Your task to perform on an android device: Go to calendar. Show me events next week Image 0: 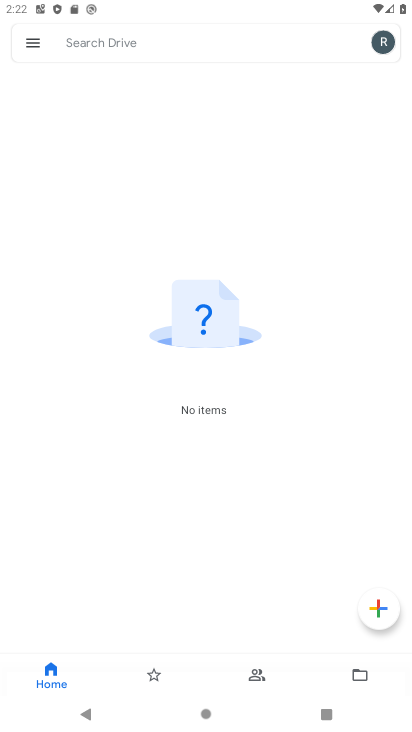
Step 0: press home button
Your task to perform on an android device: Go to calendar. Show me events next week Image 1: 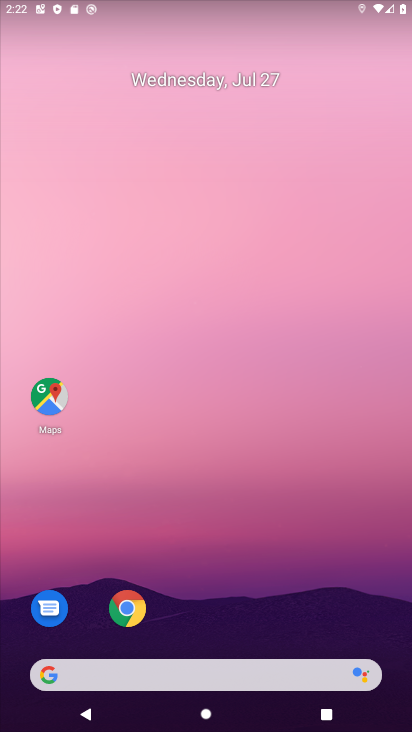
Step 1: drag from (256, 332) to (161, 111)
Your task to perform on an android device: Go to calendar. Show me events next week Image 2: 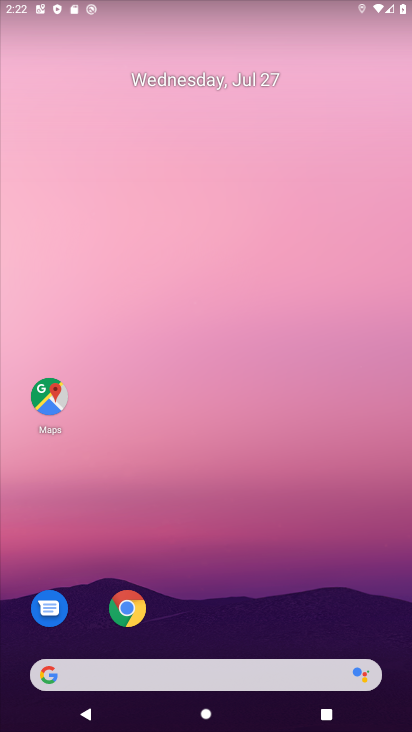
Step 2: drag from (323, 569) to (260, 63)
Your task to perform on an android device: Go to calendar. Show me events next week Image 3: 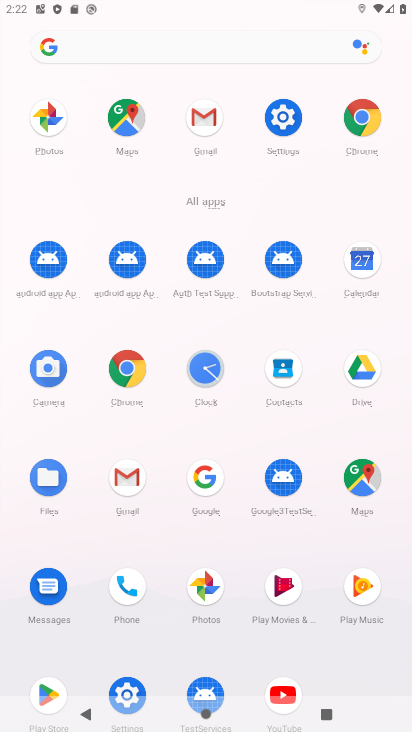
Step 3: click (363, 275)
Your task to perform on an android device: Go to calendar. Show me events next week Image 4: 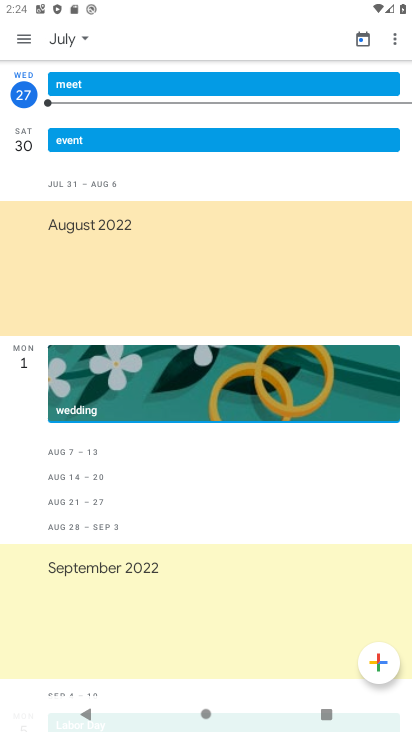
Step 4: task complete